Your task to perform on an android device: Go to internet settings Image 0: 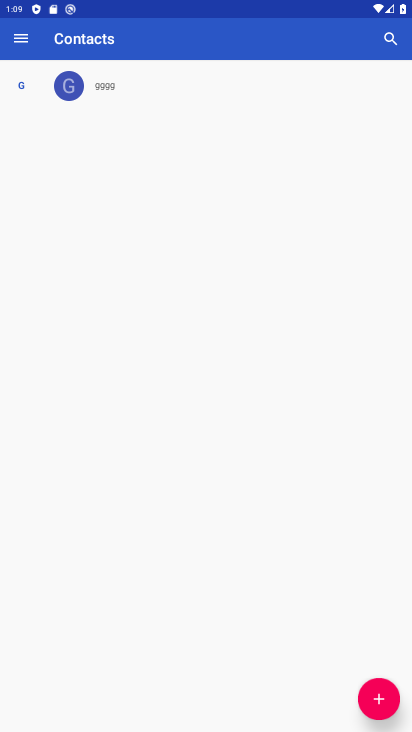
Step 0: press home button
Your task to perform on an android device: Go to internet settings Image 1: 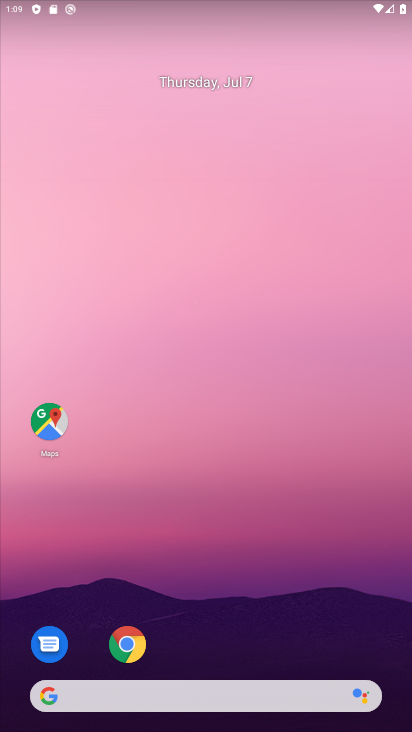
Step 1: drag from (196, 695) to (202, 227)
Your task to perform on an android device: Go to internet settings Image 2: 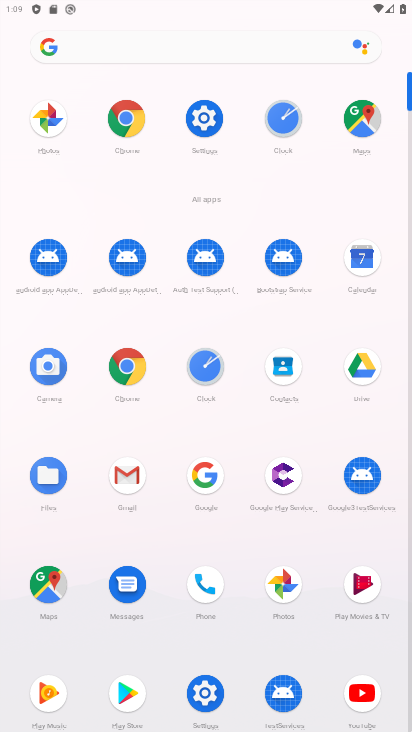
Step 2: click (202, 122)
Your task to perform on an android device: Go to internet settings Image 3: 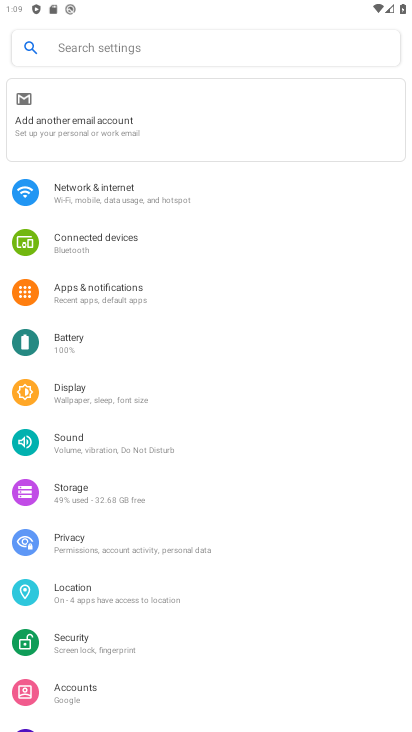
Step 3: click (139, 196)
Your task to perform on an android device: Go to internet settings Image 4: 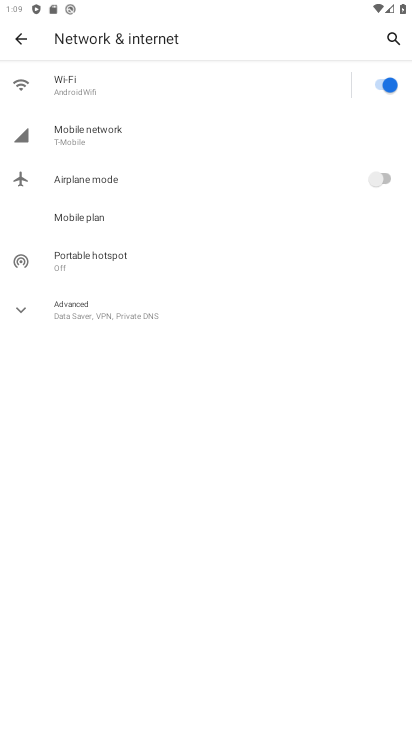
Step 4: task complete